Your task to perform on an android device: Open battery settings Image 0: 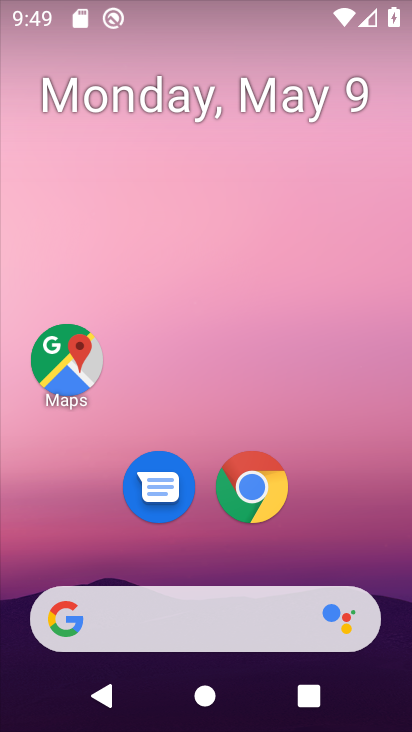
Step 0: drag from (359, 521) to (267, 14)
Your task to perform on an android device: Open battery settings Image 1: 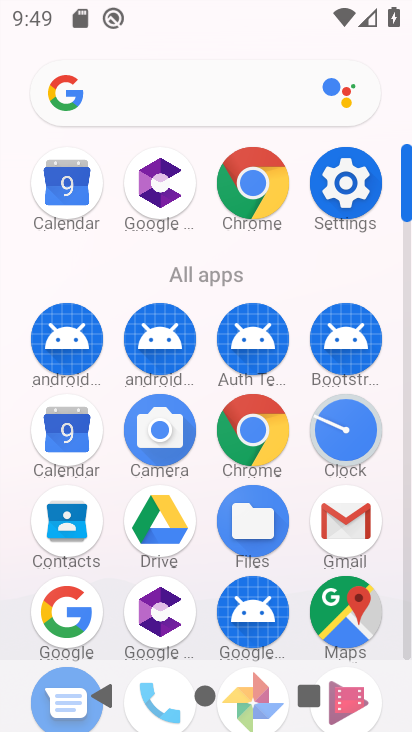
Step 1: click (349, 182)
Your task to perform on an android device: Open battery settings Image 2: 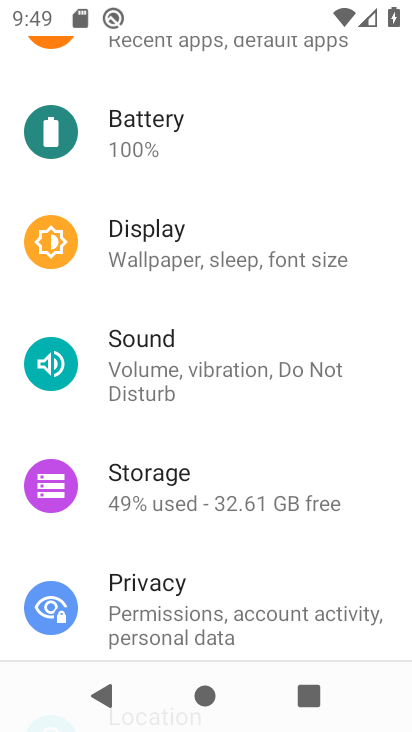
Step 2: click (214, 122)
Your task to perform on an android device: Open battery settings Image 3: 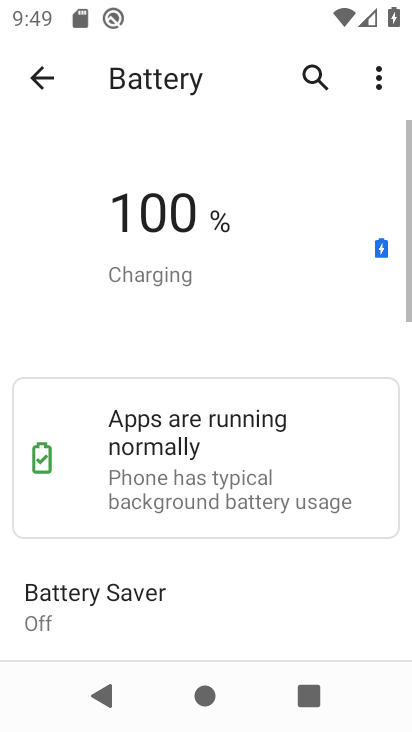
Step 3: task complete